Your task to perform on an android device: Search for sushi restaurants on Maps Image 0: 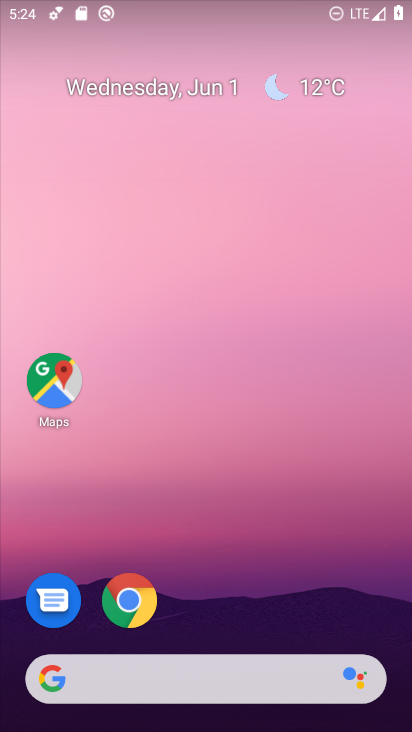
Step 0: click (59, 381)
Your task to perform on an android device: Search for sushi restaurants on Maps Image 1: 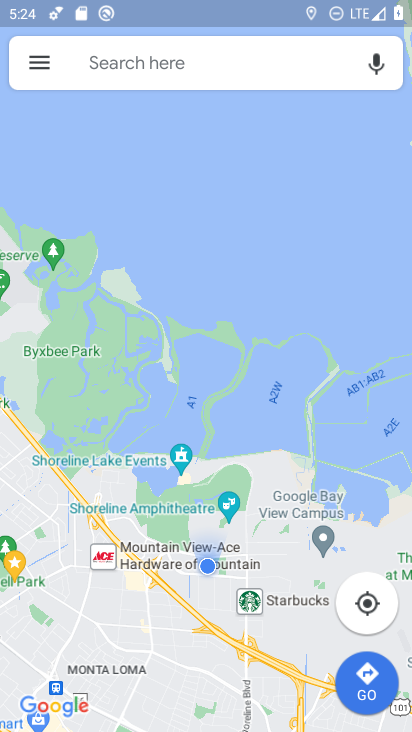
Step 1: click (164, 63)
Your task to perform on an android device: Search for sushi restaurants on Maps Image 2: 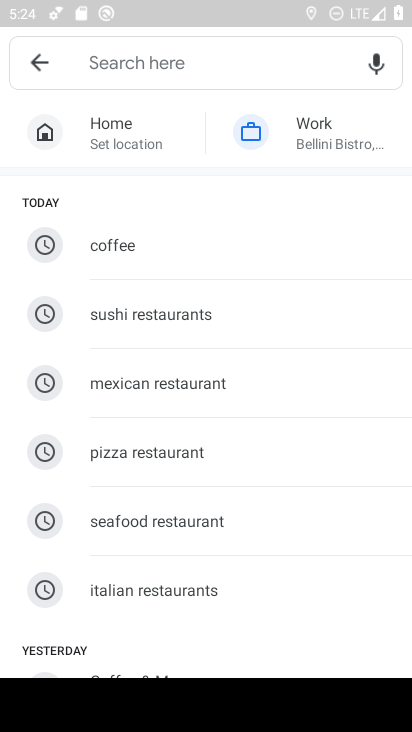
Step 2: type "sushi restaurants"
Your task to perform on an android device: Search for sushi restaurants on Maps Image 3: 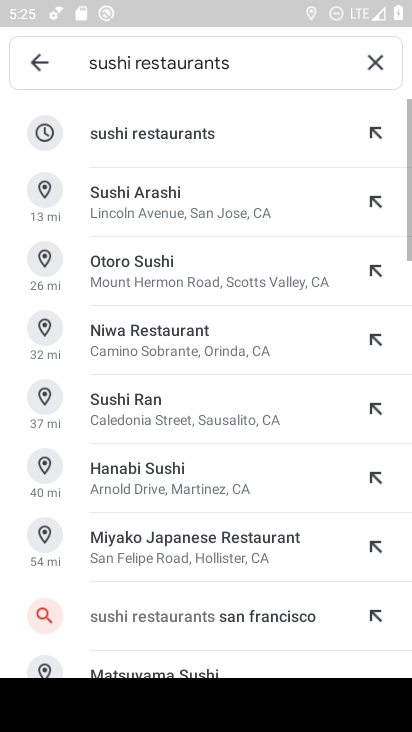
Step 3: click (153, 128)
Your task to perform on an android device: Search for sushi restaurants on Maps Image 4: 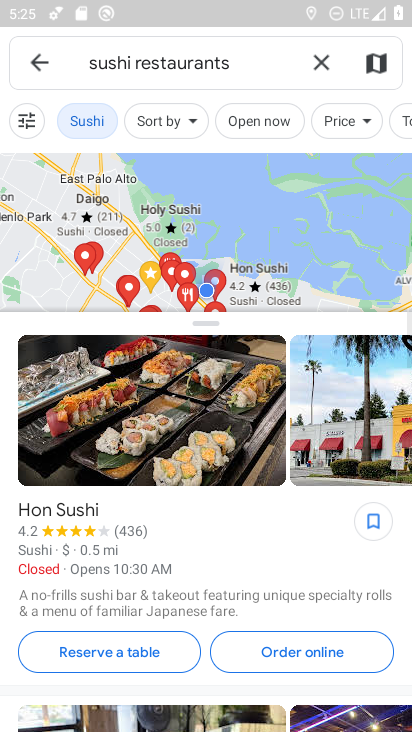
Step 4: task complete